Your task to perform on an android device: toggle pop-ups in chrome Image 0: 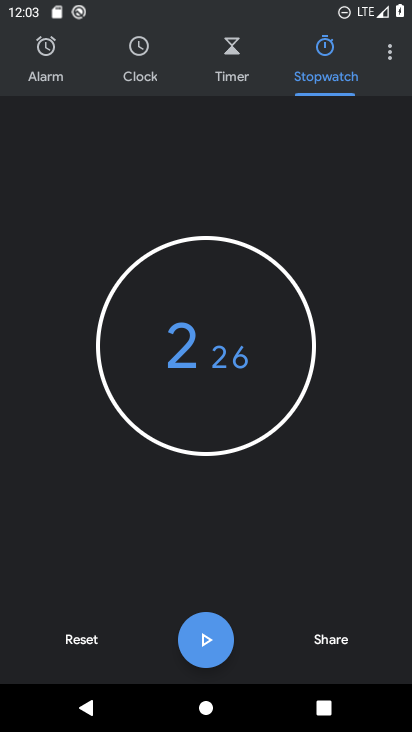
Step 0: press home button
Your task to perform on an android device: toggle pop-ups in chrome Image 1: 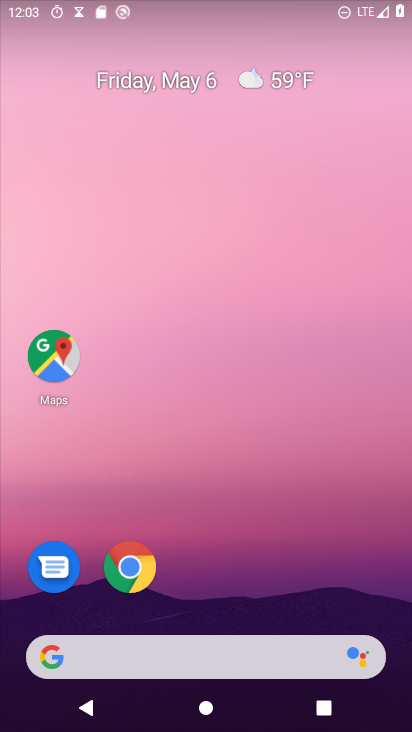
Step 1: click (135, 572)
Your task to perform on an android device: toggle pop-ups in chrome Image 2: 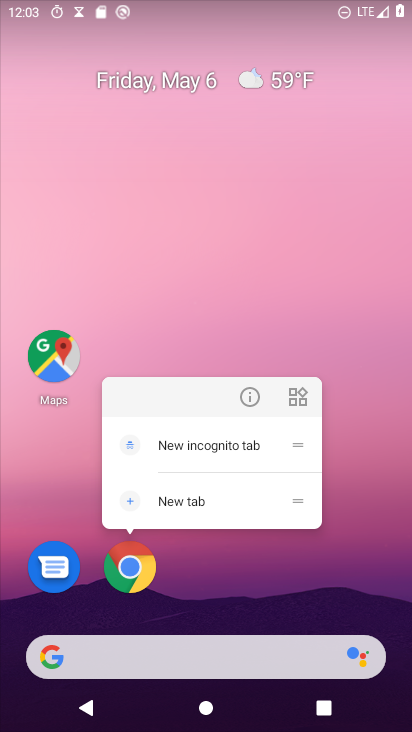
Step 2: click (135, 570)
Your task to perform on an android device: toggle pop-ups in chrome Image 3: 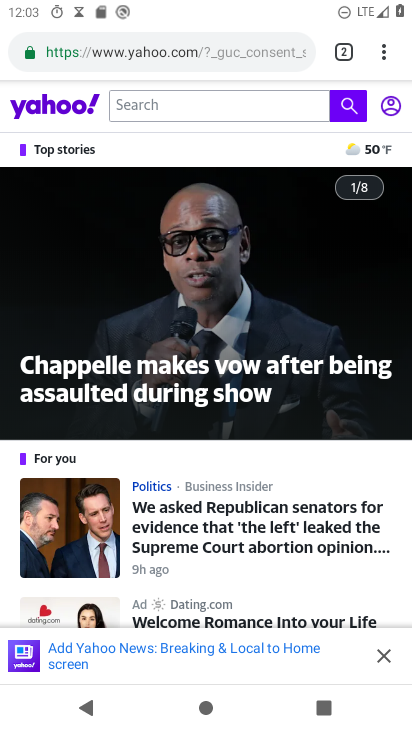
Step 3: drag from (383, 52) to (203, 619)
Your task to perform on an android device: toggle pop-ups in chrome Image 4: 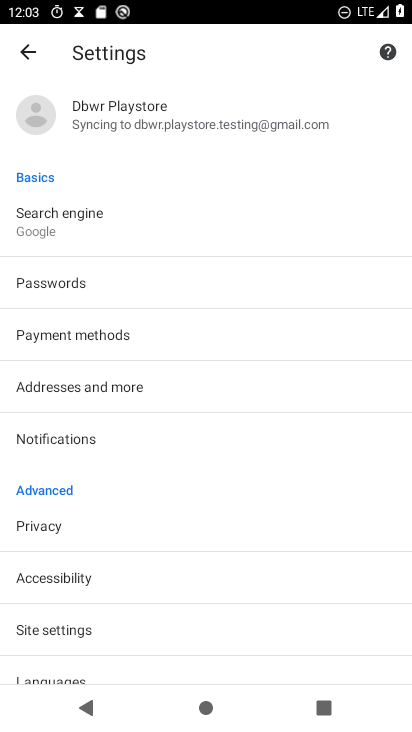
Step 4: click (68, 624)
Your task to perform on an android device: toggle pop-ups in chrome Image 5: 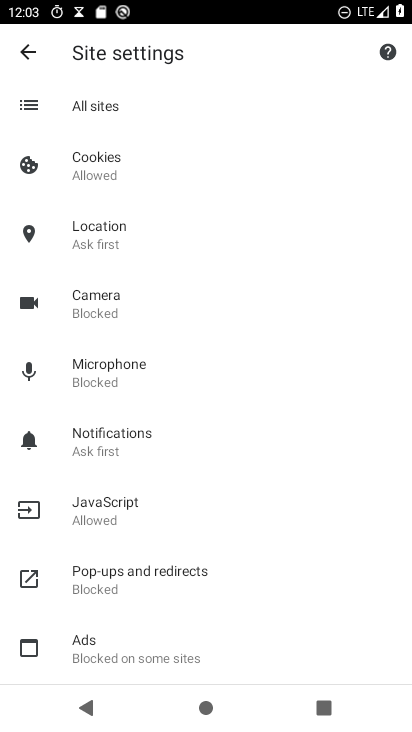
Step 5: click (121, 588)
Your task to perform on an android device: toggle pop-ups in chrome Image 6: 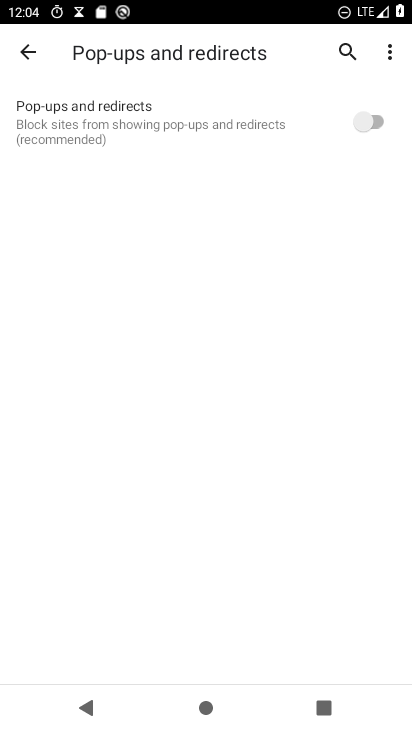
Step 6: click (370, 123)
Your task to perform on an android device: toggle pop-ups in chrome Image 7: 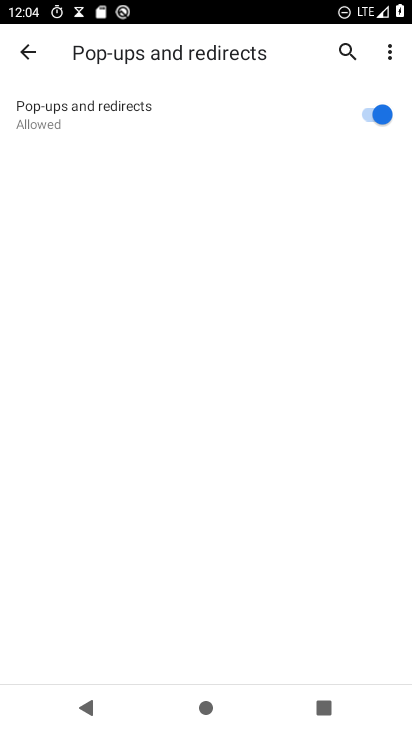
Step 7: task complete